Your task to perform on an android device: add a contact in the contacts app Image 0: 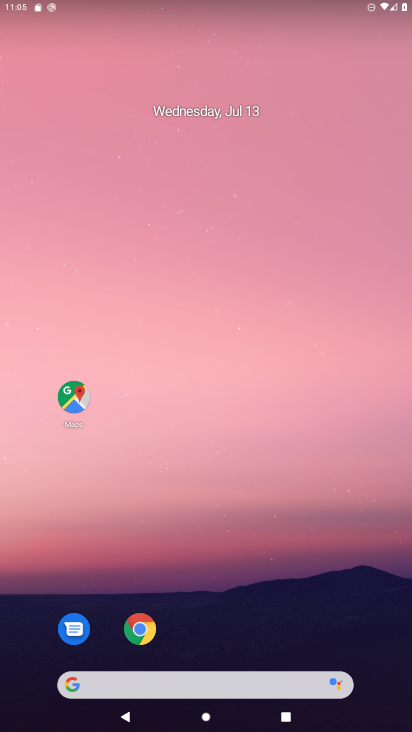
Step 0: drag from (337, 571) to (277, 218)
Your task to perform on an android device: add a contact in the contacts app Image 1: 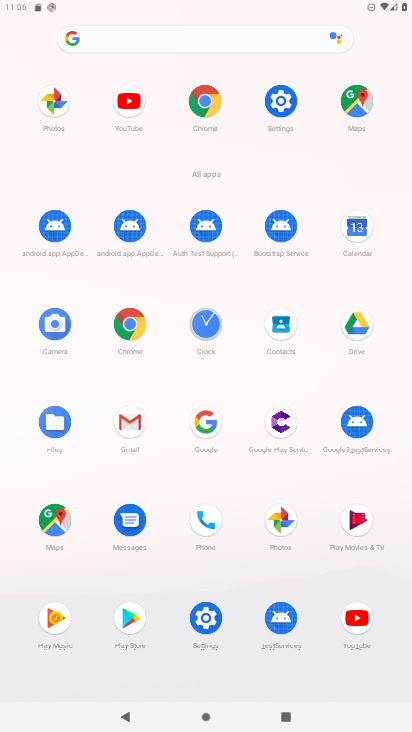
Step 1: click (280, 330)
Your task to perform on an android device: add a contact in the contacts app Image 2: 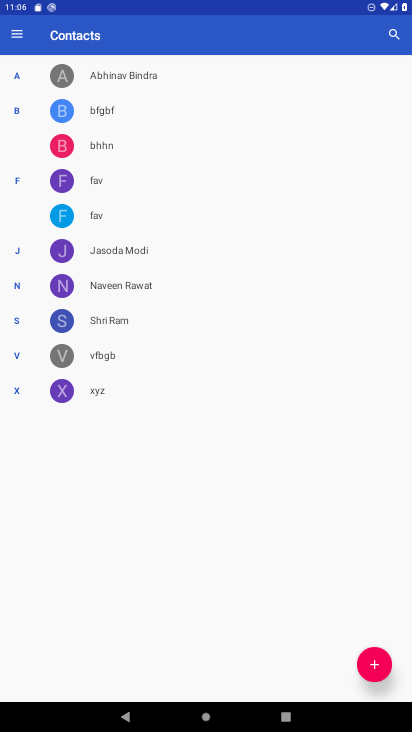
Step 2: click (375, 652)
Your task to perform on an android device: add a contact in the contacts app Image 3: 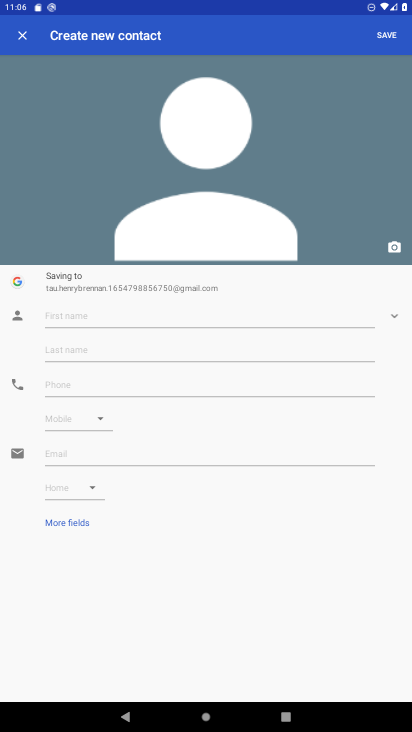
Step 3: click (257, 312)
Your task to perform on an android device: add a contact in the contacts app Image 4: 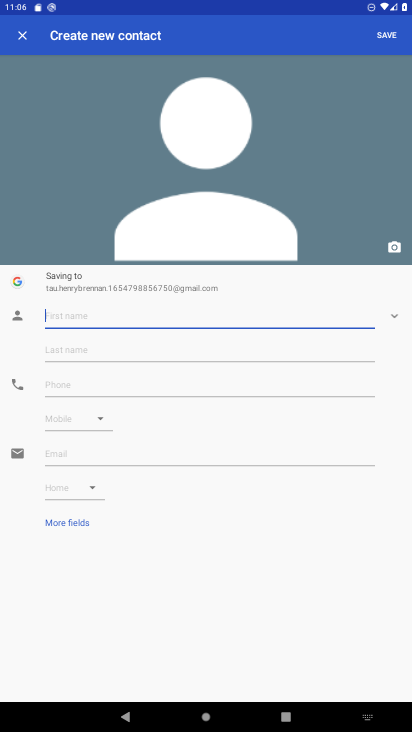
Step 4: type "ghfgjfdgvff"
Your task to perform on an android device: add a contact in the contacts app Image 5: 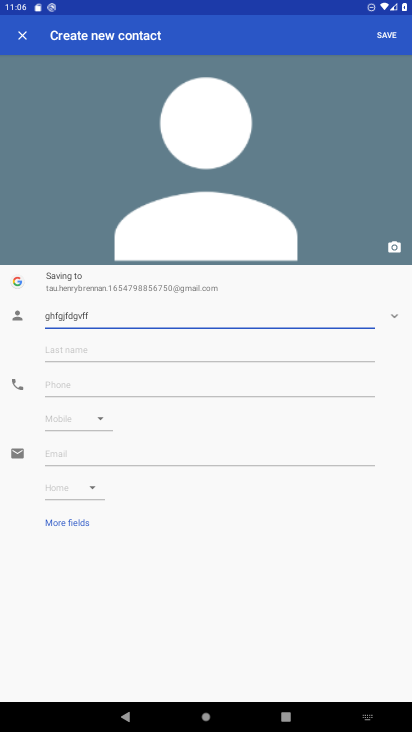
Step 5: click (168, 346)
Your task to perform on an android device: add a contact in the contacts app Image 6: 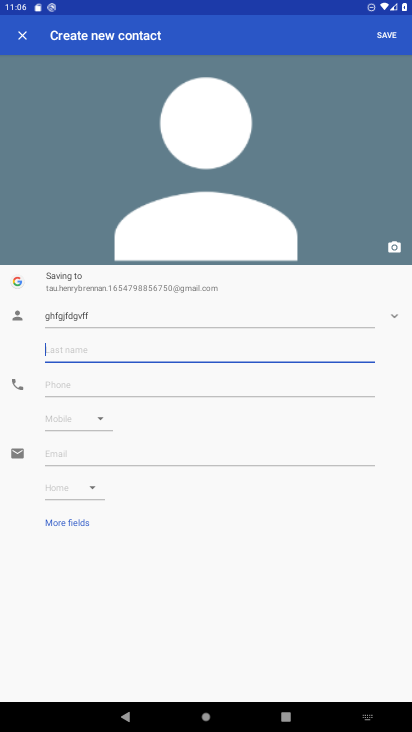
Step 6: type "fdefcfxcghvfc"
Your task to perform on an android device: add a contact in the contacts app Image 7: 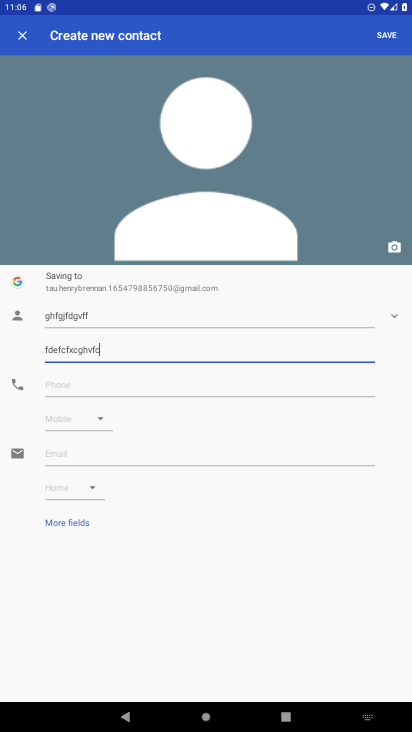
Step 7: click (92, 383)
Your task to perform on an android device: add a contact in the contacts app Image 8: 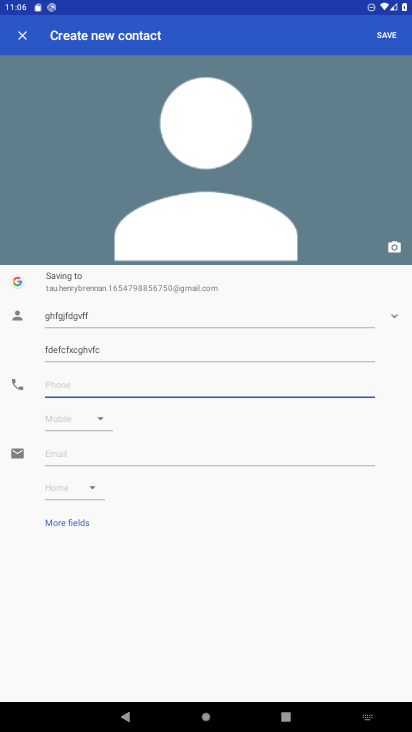
Step 8: type "875657545555"
Your task to perform on an android device: add a contact in the contacts app Image 9: 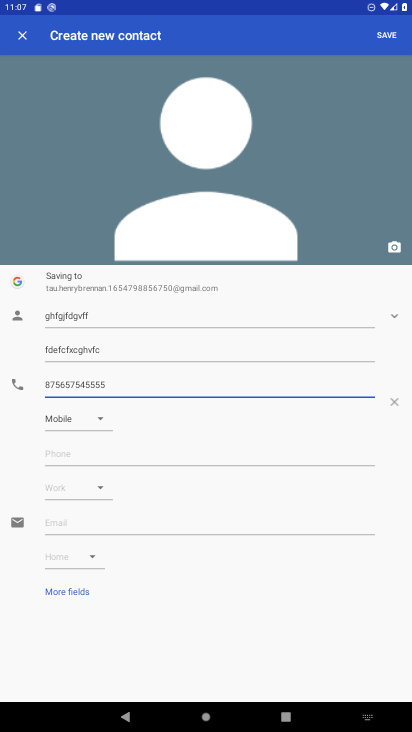
Step 9: click (379, 36)
Your task to perform on an android device: add a contact in the contacts app Image 10: 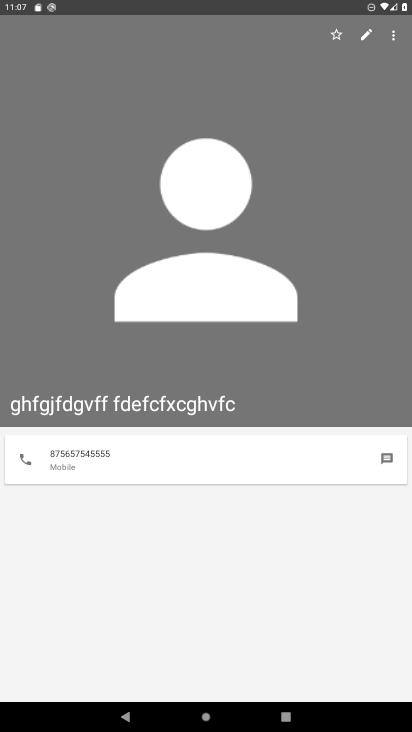
Step 10: task complete